Your task to perform on an android device: Go to privacy settings Image 0: 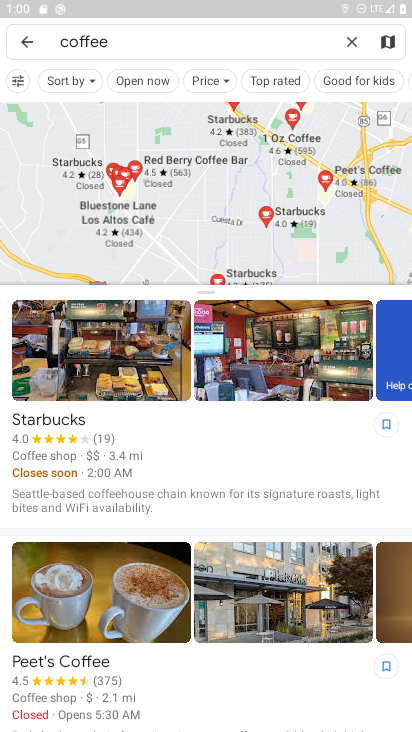
Step 0: drag from (265, 470) to (250, 162)
Your task to perform on an android device: Go to privacy settings Image 1: 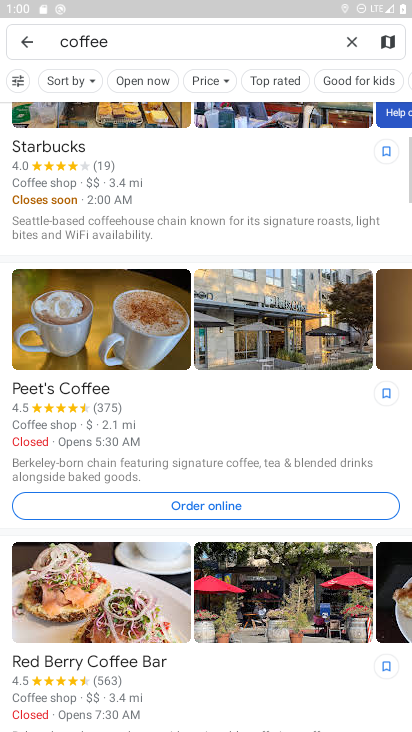
Step 1: drag from (196, 162) to (316, 521)
Your task to perform on an android device: Go to privacy settings Image 2: 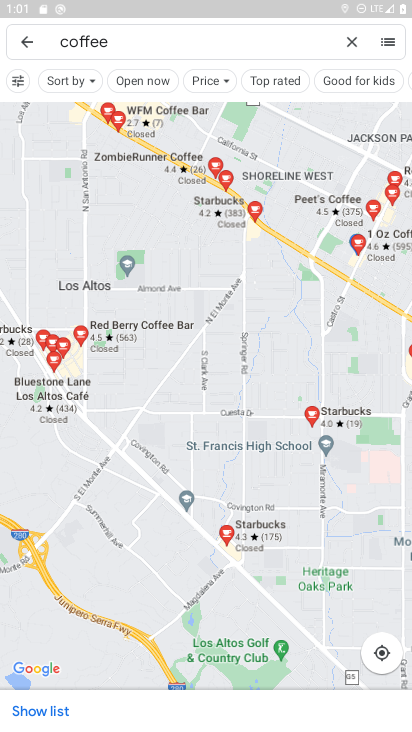
Step 2: drag from (153, 524) to (220, 128)
Your task to perform on an android device: Go to privacy settings Image 3: 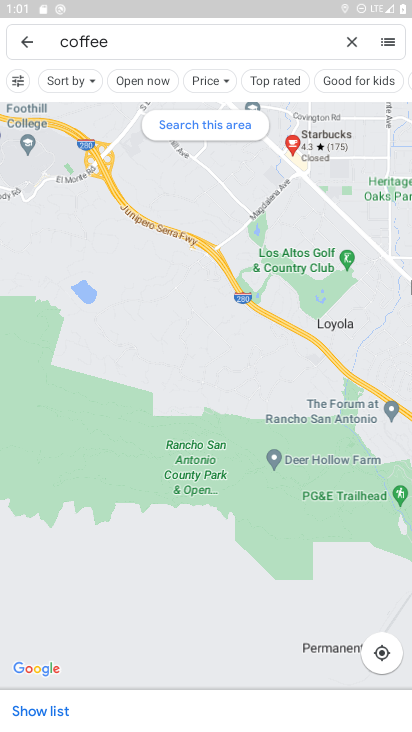
Step 3: drag from (174, 603) to (236, 196)
Your task to perform on an android device: Go to privacy settings Image 4: 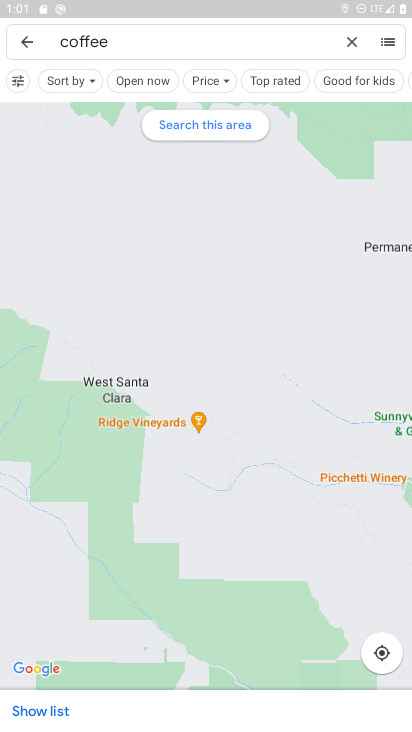
Step 4: press home button
Your task to perform on an android device: Go to privacy settings Image 5: 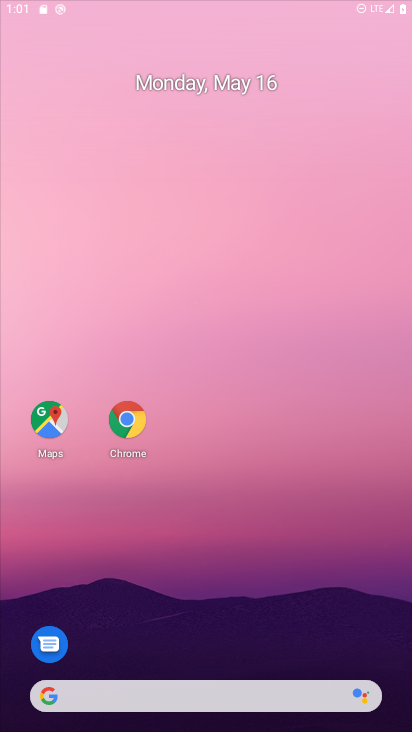
Step 5: drag from (187, 661) to (227, 135)
Your task to perform on an android device: Go to privacy settings Image 6: 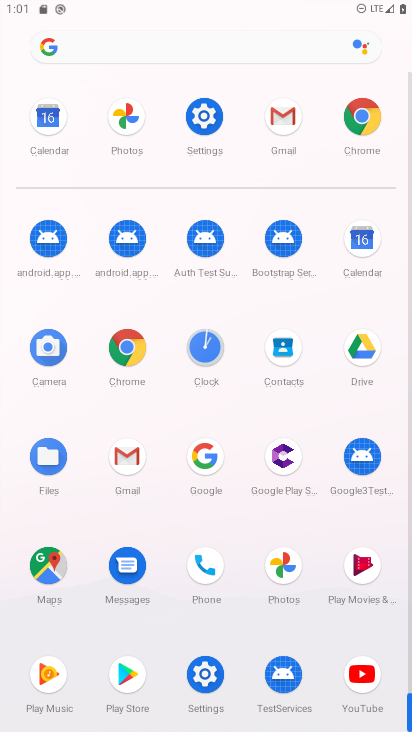
Step 6: click (187, 129)
Your task to perform on an android device: Go to privacy settings Image 7: 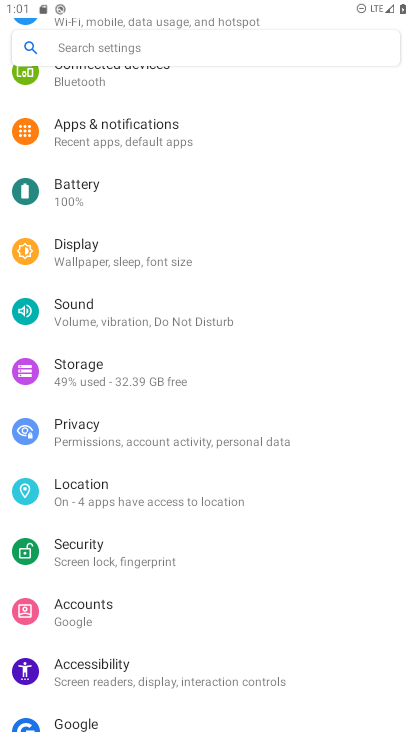
Step 7: click (89, 418)
Your task to perform on an android device: Go to privacy settings Image 8: 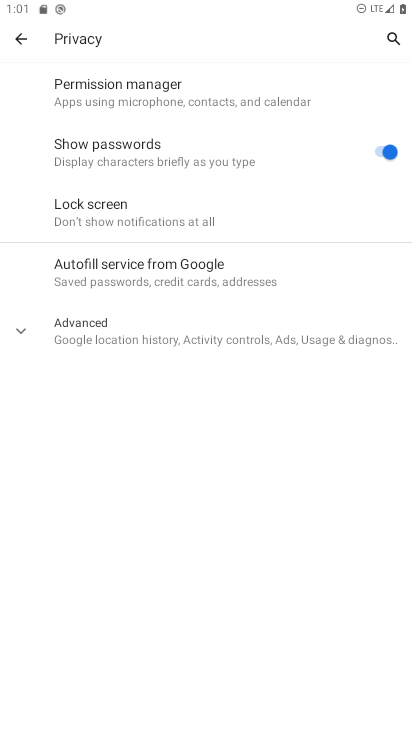
Step 8: task complete